Your task to perform on an android device: Open Android settings Image 0: 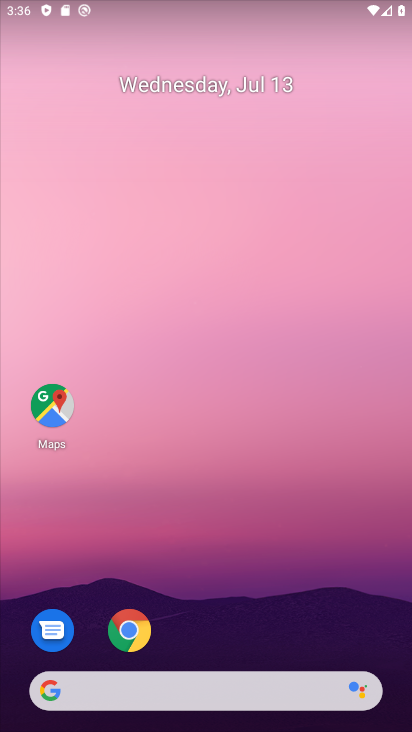
Step 0: drag from (240, 603) to (163, 19)
Your task to perform on an android device: Open Android settings Image 1: 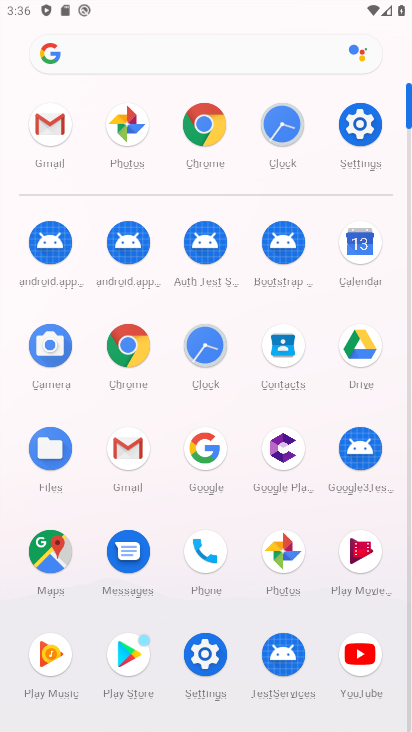
Step 1: click (360, 120)
Your task to perform on an android device: Open Android settings Image 2: 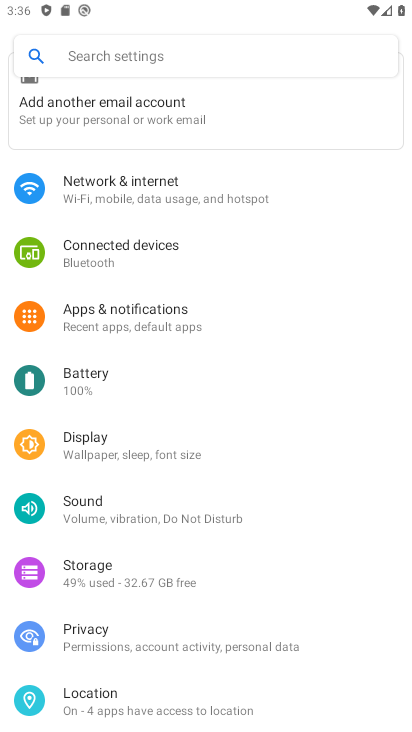
Step 2: task complete